Your task to perform on an android device: What's the weather going to be tomorrow? Image 0: 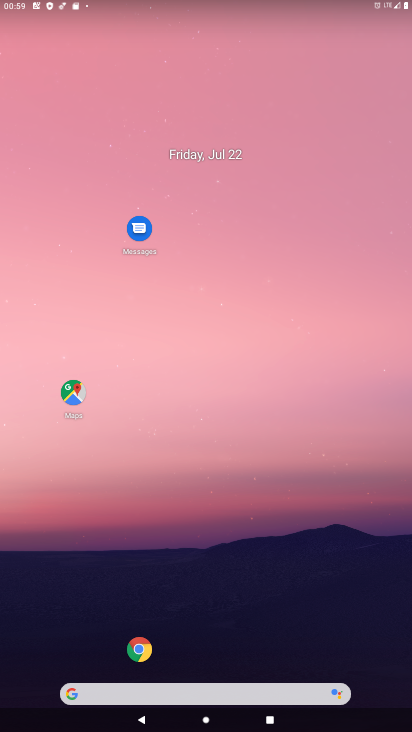
Step 0: click (82, 687)
Your task to perform on an android device: What's the weather going to be tomorrow? Image 1: 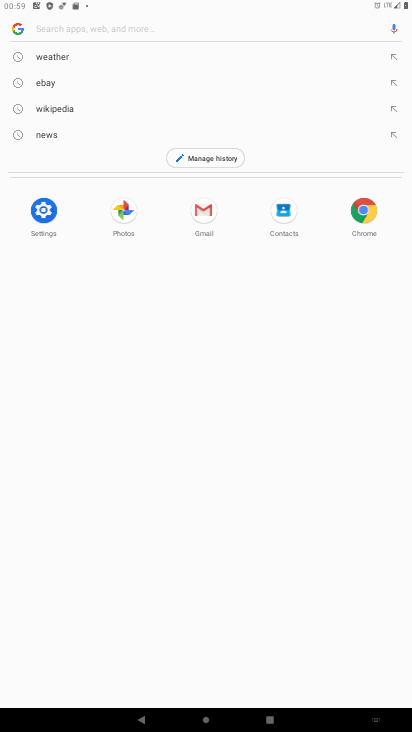
Step 1: type "What's the weather going to be tomorrow?"
Your task to perform on an android device: What's the weather going to be tomorrow? Image 2: 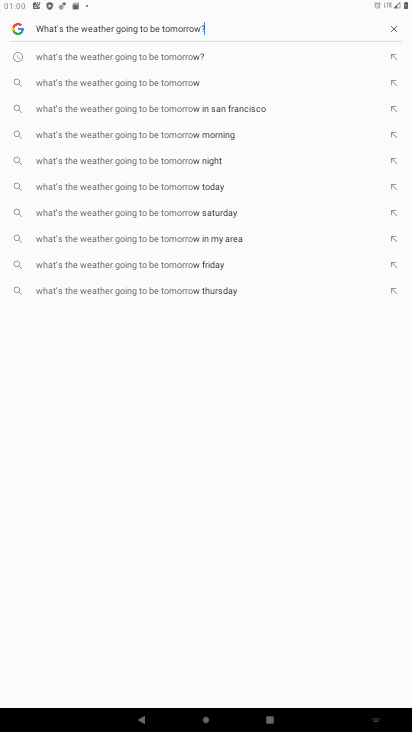
Step 2: type ""
Your task to perform on an android device: What's the weather going to be tomorrow? Image 3: 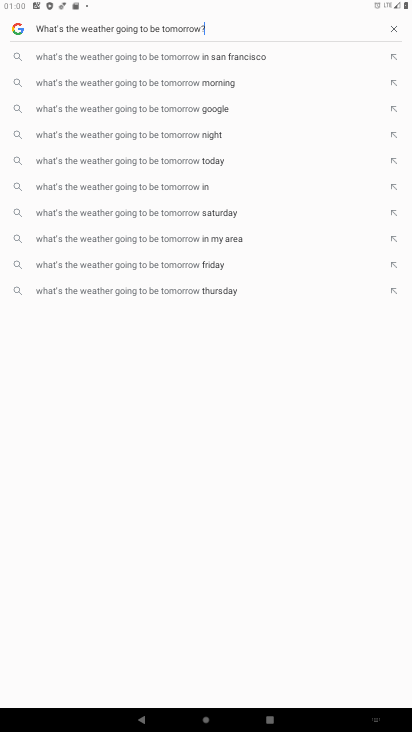
Step 3: type ""
Your task to perform on an android device: What's the weather going to be tomorrow? Image 4: 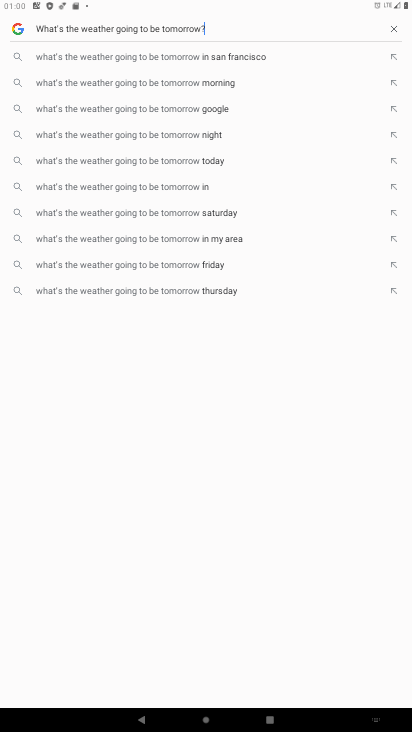
Step 4: type ""
Your task to perform on an android device: What's the weather going to be tomorrow? Image 5: 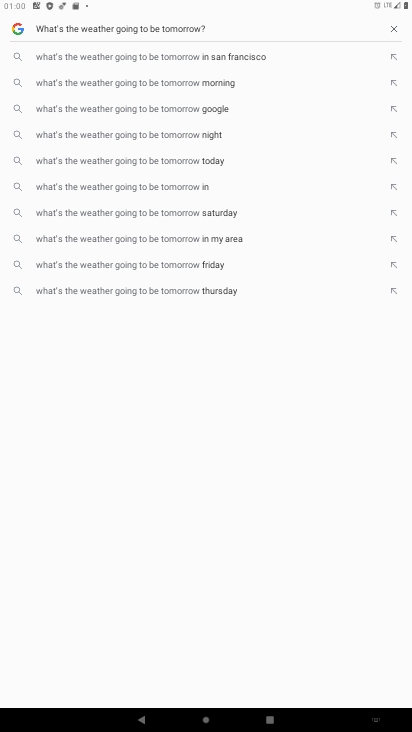
Step 5: type ""
Your task to perform on an android device: What's the weather going to be tomorrow? Image 6: 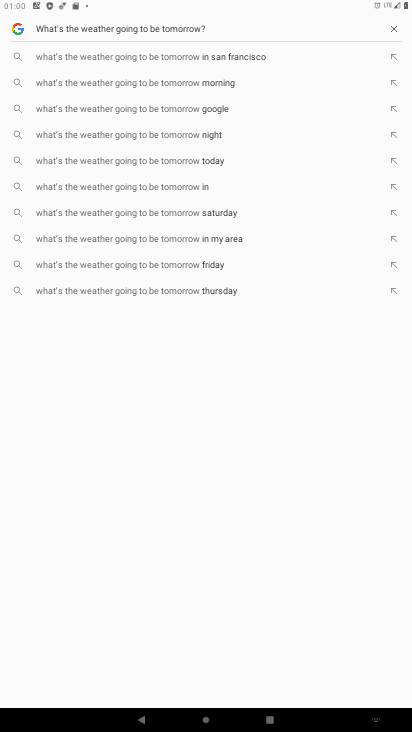
Step 6: task complete